Your task to perform on an android device: show emergency info Image 0: 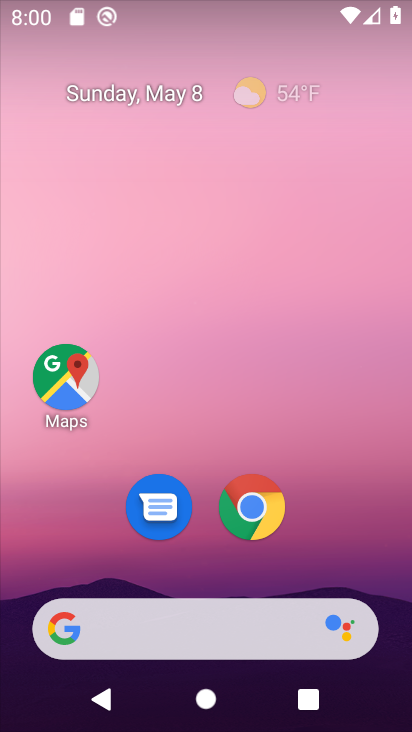
Step 0: drag from (192, 580) to (211, 184)
Your task to perform on an android device: show emergency info Image 1: 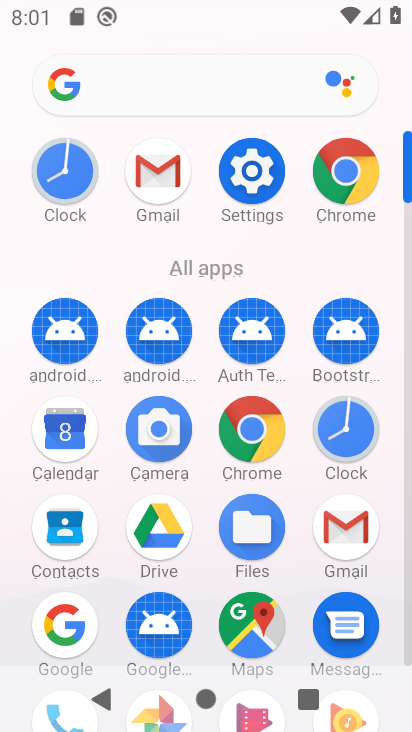
Step 1: click (247, 169)
Your task to perform on an android device: show emergency info Image 2: 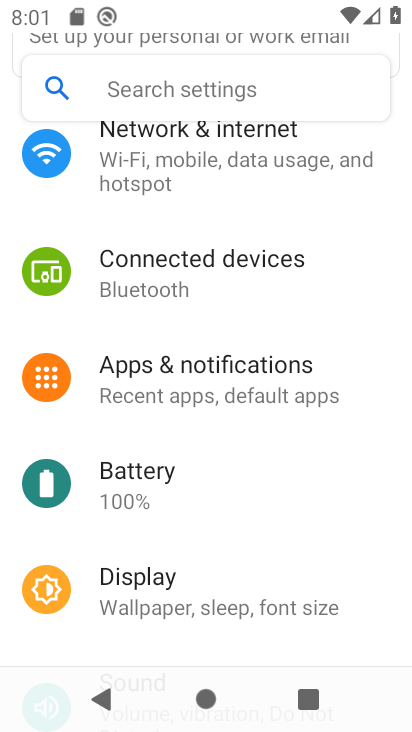
Step 2: drag from (221, 578) to (276, 159)
Your task to perform on an android device: show emergency info Image 3: 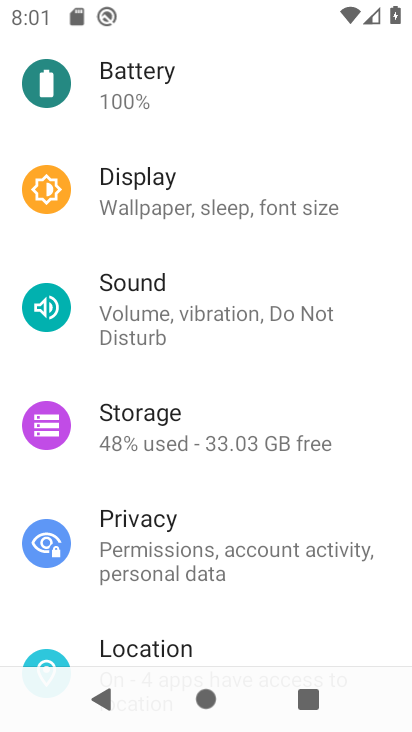
Step 3: drag from (216, 587) to (277, 169)
Your task to perform on an android device: show emergency info Image 4: 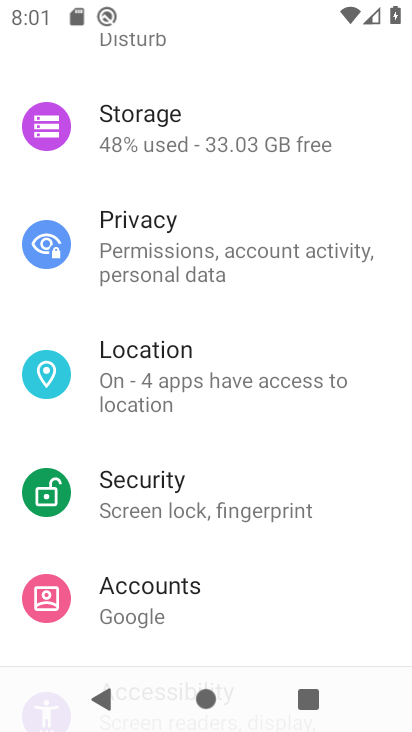
Step 4: drag from (201, 600) to (268, 292)
Your task to perform on an android device: show emergency info Image 5: 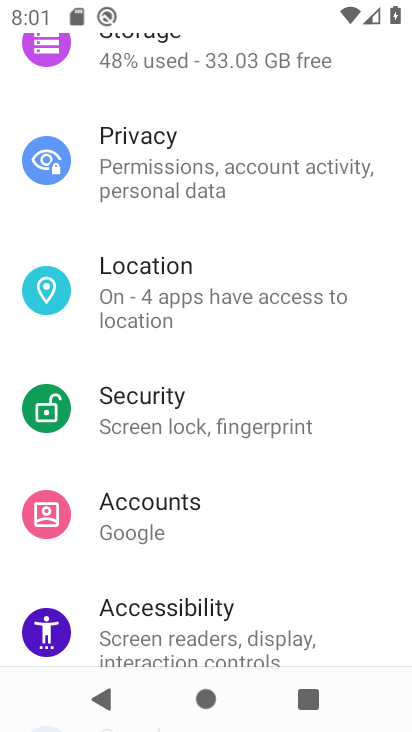
Step 5: drag from (248, 634) to (264, 274)
Your task to perform on an android device: show emergency info Image 6: 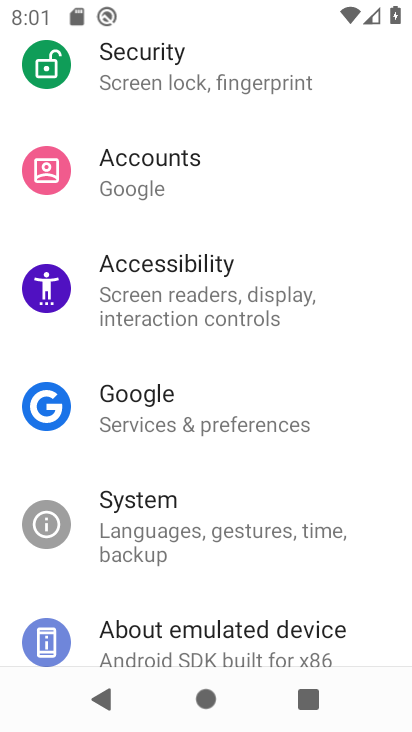
Step 6: drag from (218, 557) to (240, 183)
Your task to perform on an android device: show emergency info Image 7: 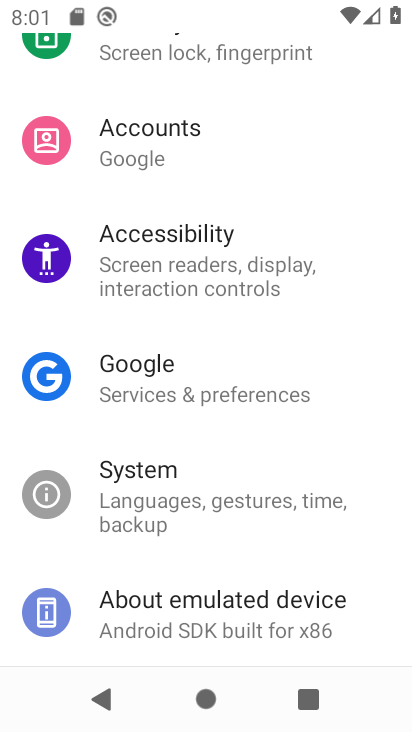
Step 7: click (211, 611)
Your task to perform on an android device: show emergency info Image 8: 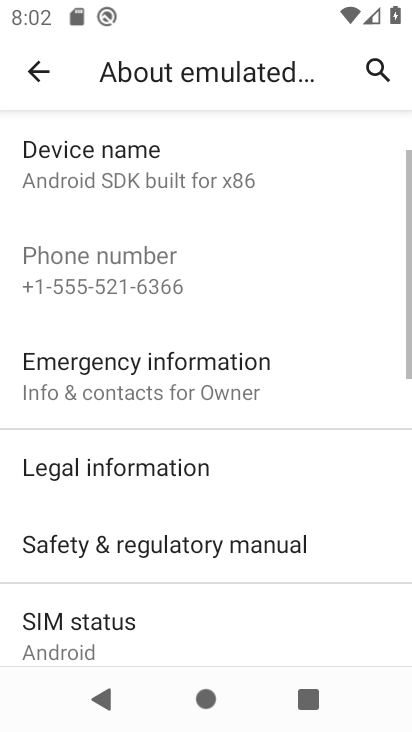
Step 8: drag from (193, 585) to (215, 366)
Your task to perform on an android device: show emergency info Image 9: 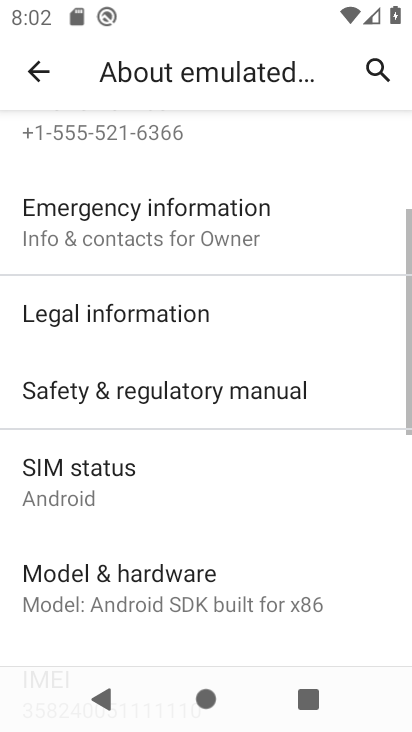
Step 9: drag from (204, 584) to (226, 261)
Your task to perform on an android device: show emergency info Image 10: 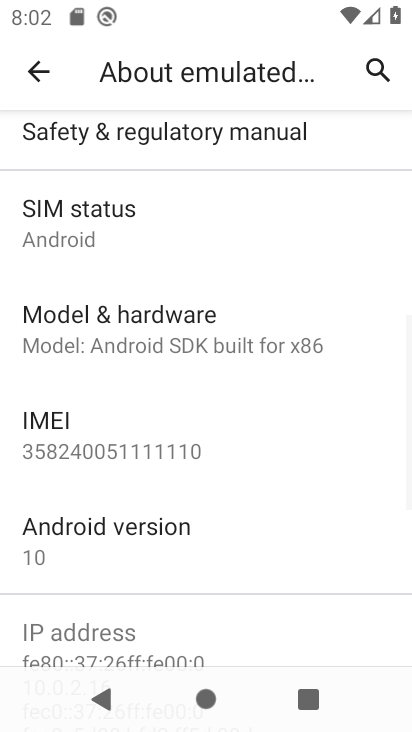
Step 10: drag from (211, 500) to (232, 248)
Your task to perform on an android device: show emergency info Image 11: 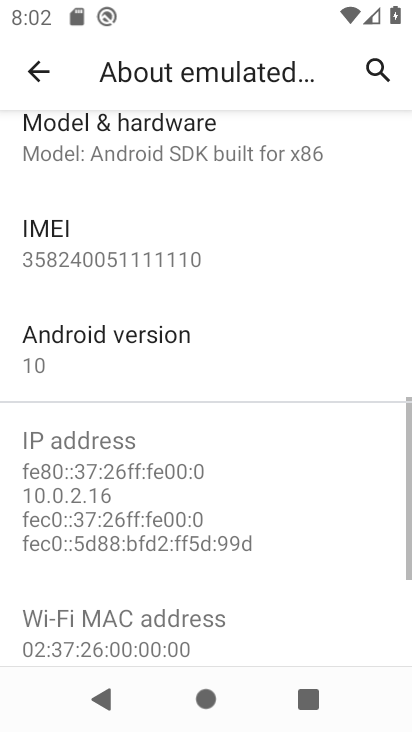
Step 11: drag from (247, 520) to (284, 145)
Your task to perform on an android device: show emergency info Image 12: 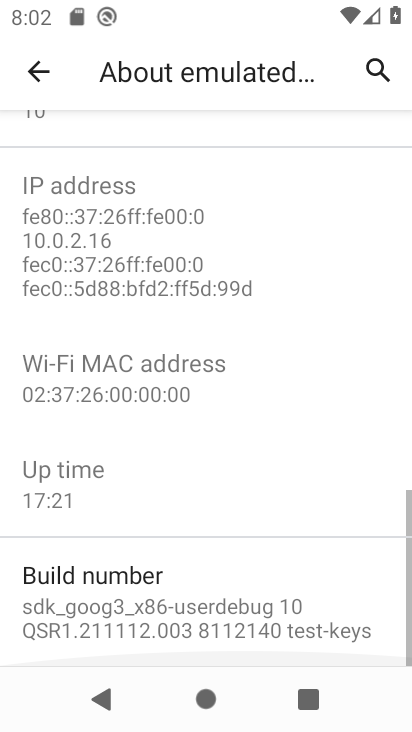
Step 12: drag from (284, 160) to (300, 556)
Your task to perform on an android device: show emergency info Image 13: 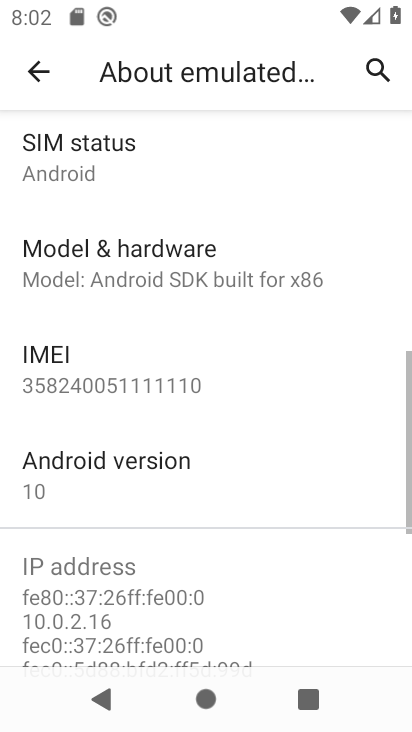
Step 13: drag from (275, 197) to (275, 632)
Your task to perform on an android device: show emergency info Image 14: 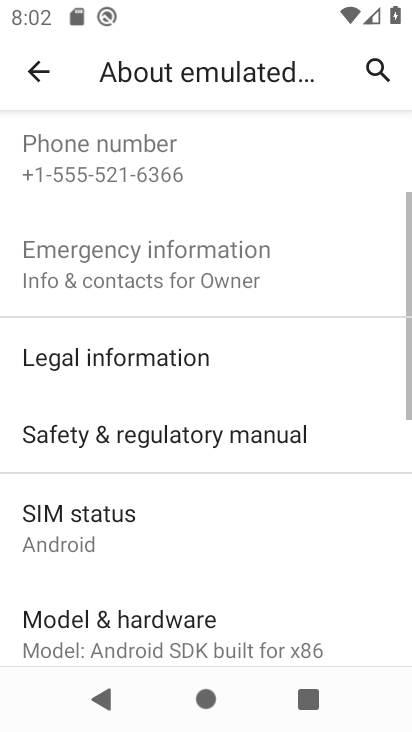
Step 14: drag from (280, 403) to (283, 561)
Your task to perform on an android device: show emergency info Image 15: 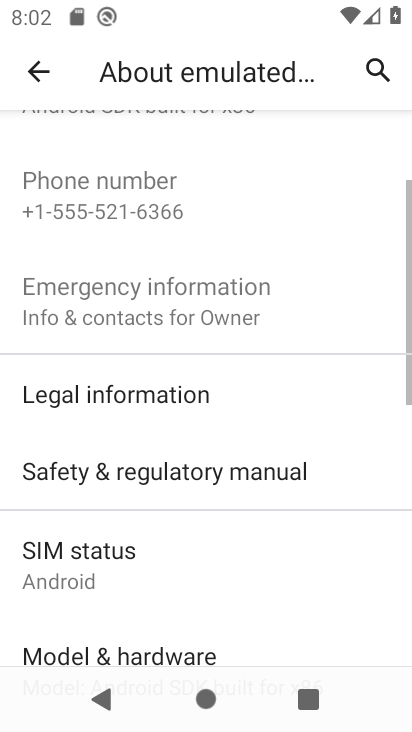
Step 15: drag from (245, 219) to (250, 652)
Your task to perform on an android device: show emergency info Image 16: 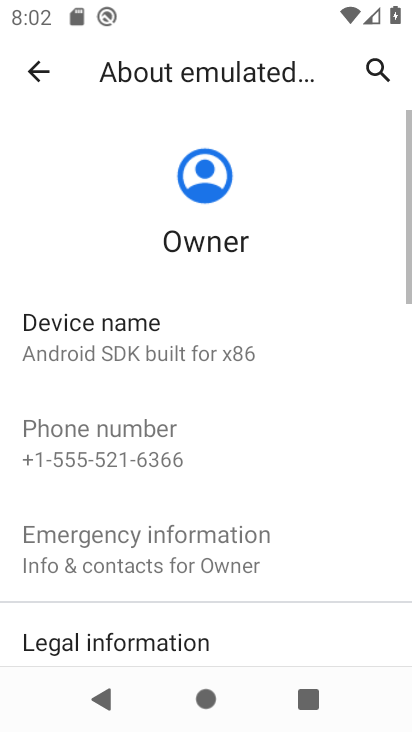
Step 16: click (193, 542)
Your task to perform on an android device: show emergency info Image 17: 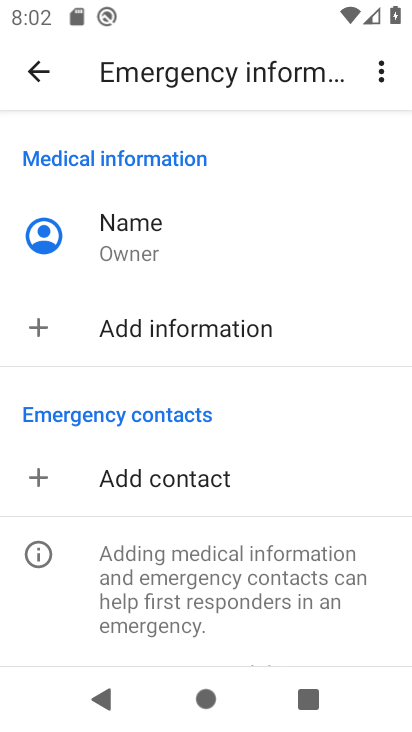
Step 17: task complete